Your task to perform on an android device: Go to privacy settings Image 0: 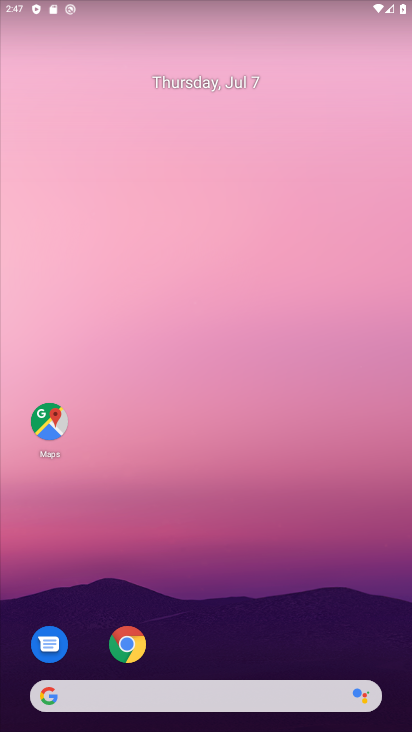
Step 0: drag from (276, 670) to (209, 268)
Your task to perform on an android device: Go to privacy settings Image 1: 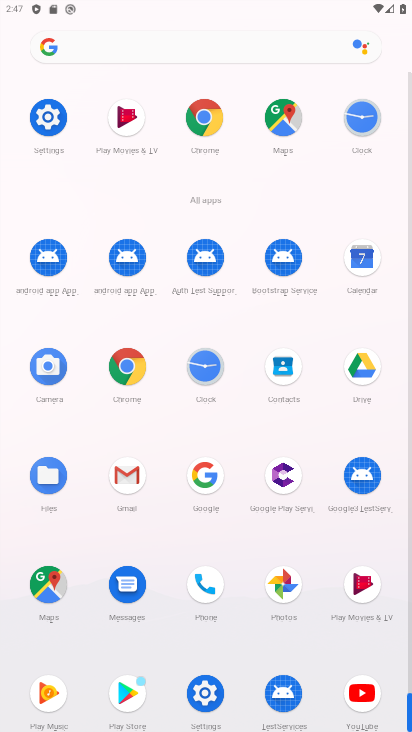
Step 1: click (48, 127)
Your task to perform on an android device: Go to privacy settings Image 2: 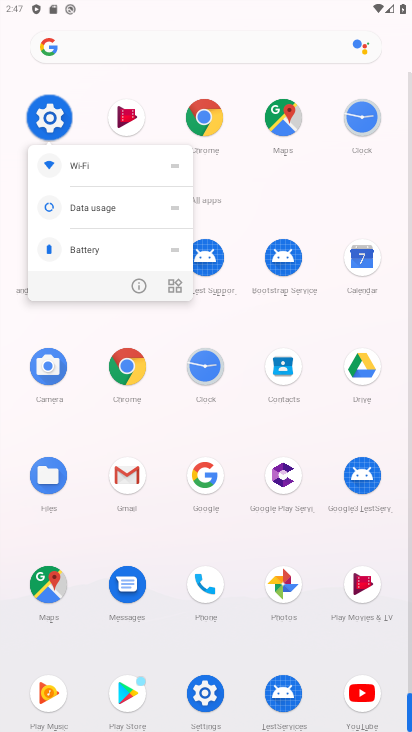
Step 2: click (45, 130)
Your task to perform on an android device: Go to privacy settings Image 3: 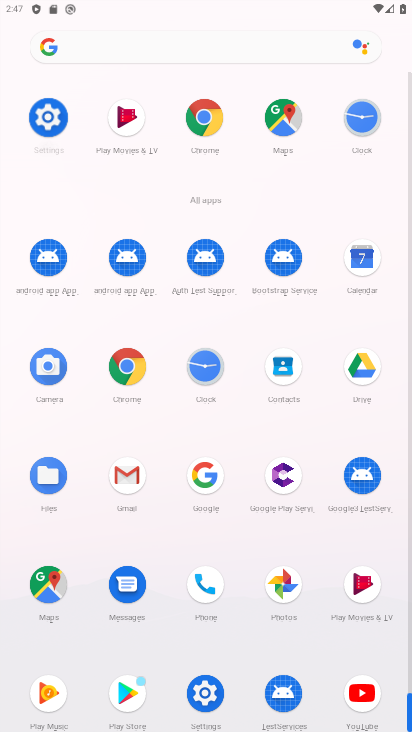
Step 3: click (45, 130)
Your task to perform on an android device: Go to privacy settings Image 4: 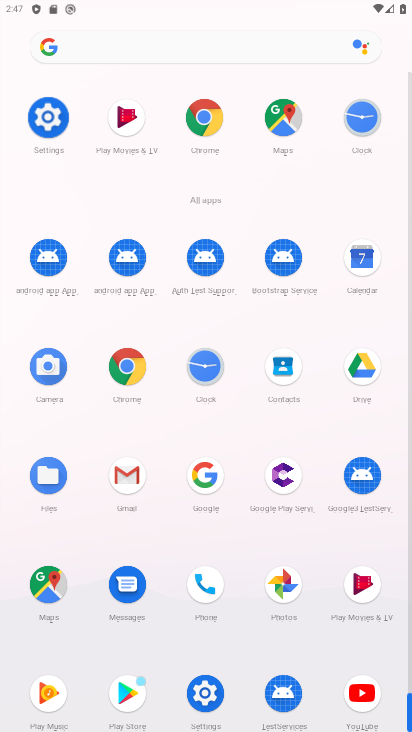
Step 4: click (45, 130)
Your task to perform on an android device: Go to privacy settings Image 5: 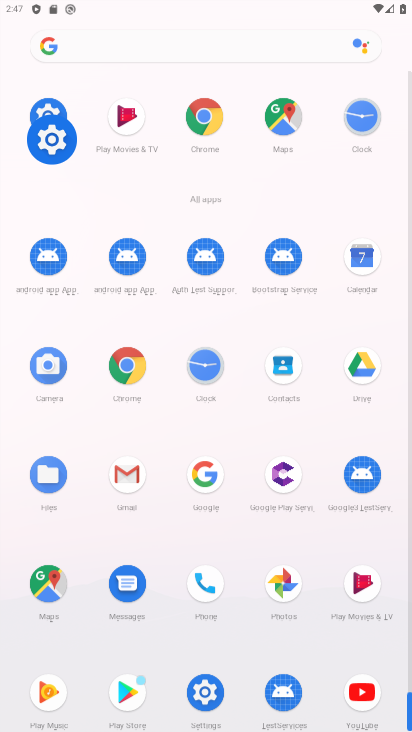
Step 5: click (47, 131)
Your task to perform on an android device: Go to privacy settings Image 6: 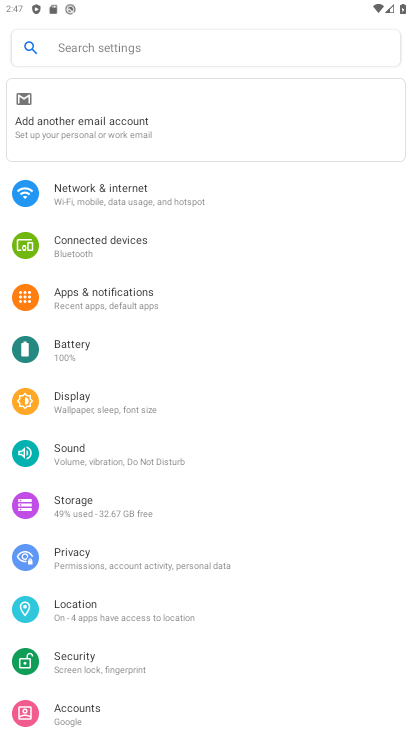
Step 6: click (51, 131)
Your task to perform on an android device: Go to privacy settings Image 7: 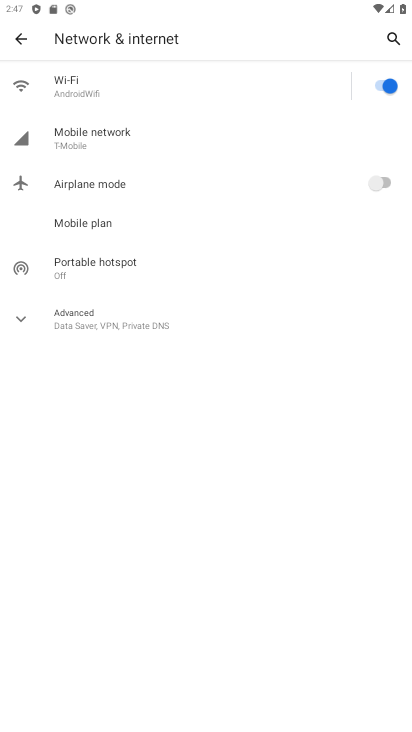
Step 7: click (21, 43)
Your task to perform on an android device: Go to privacy settings Image 8: 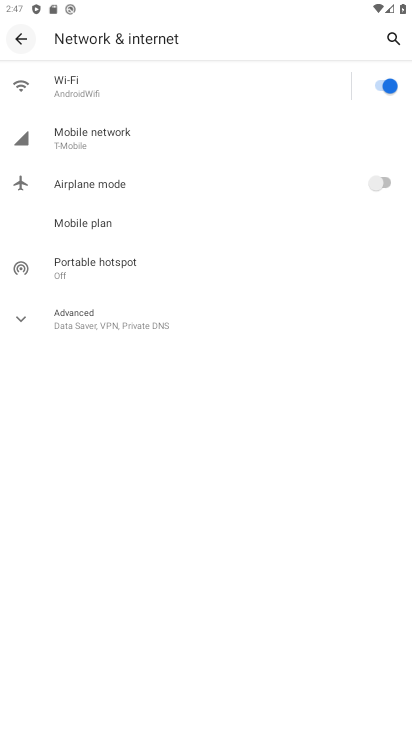
Step 8: click (21, 41)
Your task to perform on an android device: Go to privacy settings Image 9: 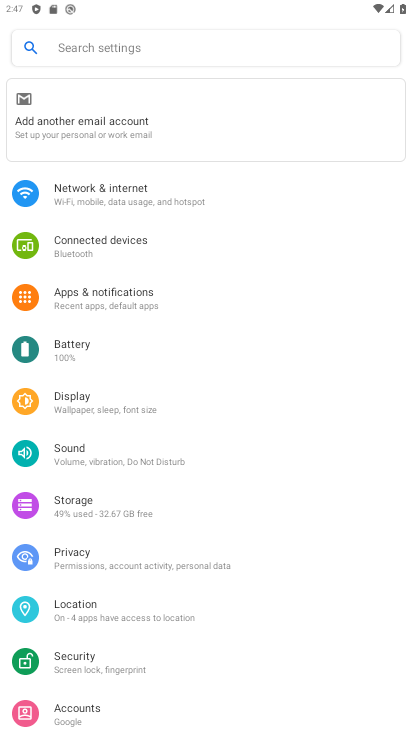
Step 9: click (65, 556)
Your task to perform on an android device: Go to privacy settings Image 10: 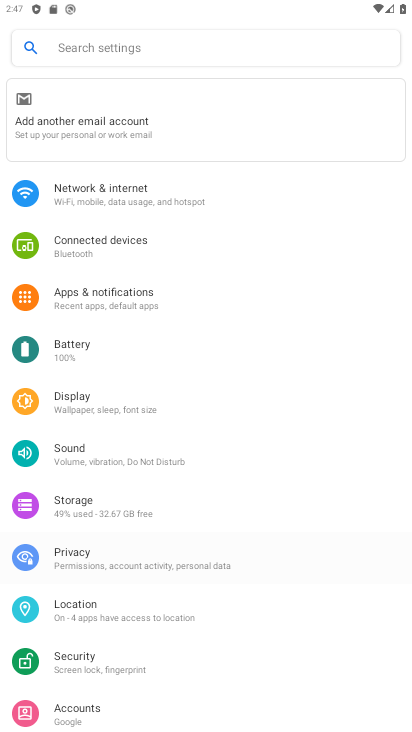
Step 10: click (66, 555)
Your task to perform on an android device: Go to privacy settings Image 11: 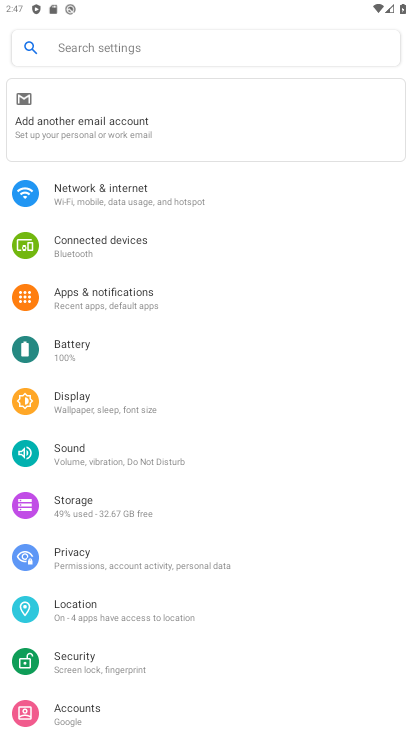
Step 11: click (66, 555)
Your task to perform on an android device: Go to privacy settings Image 12: 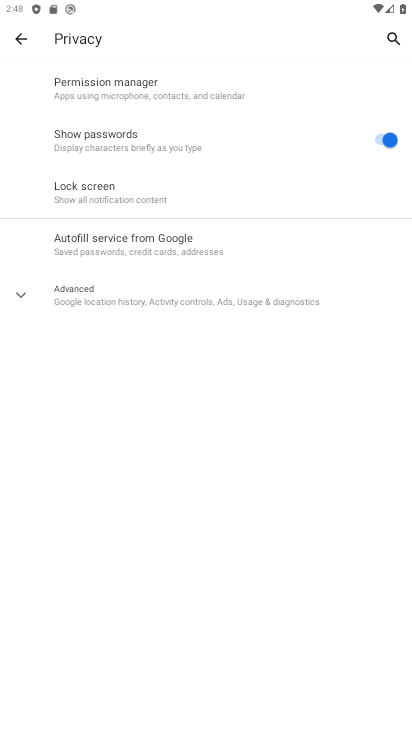
Step 12: task complete